Your task to perform on an android device: Open internet settings Image 0: 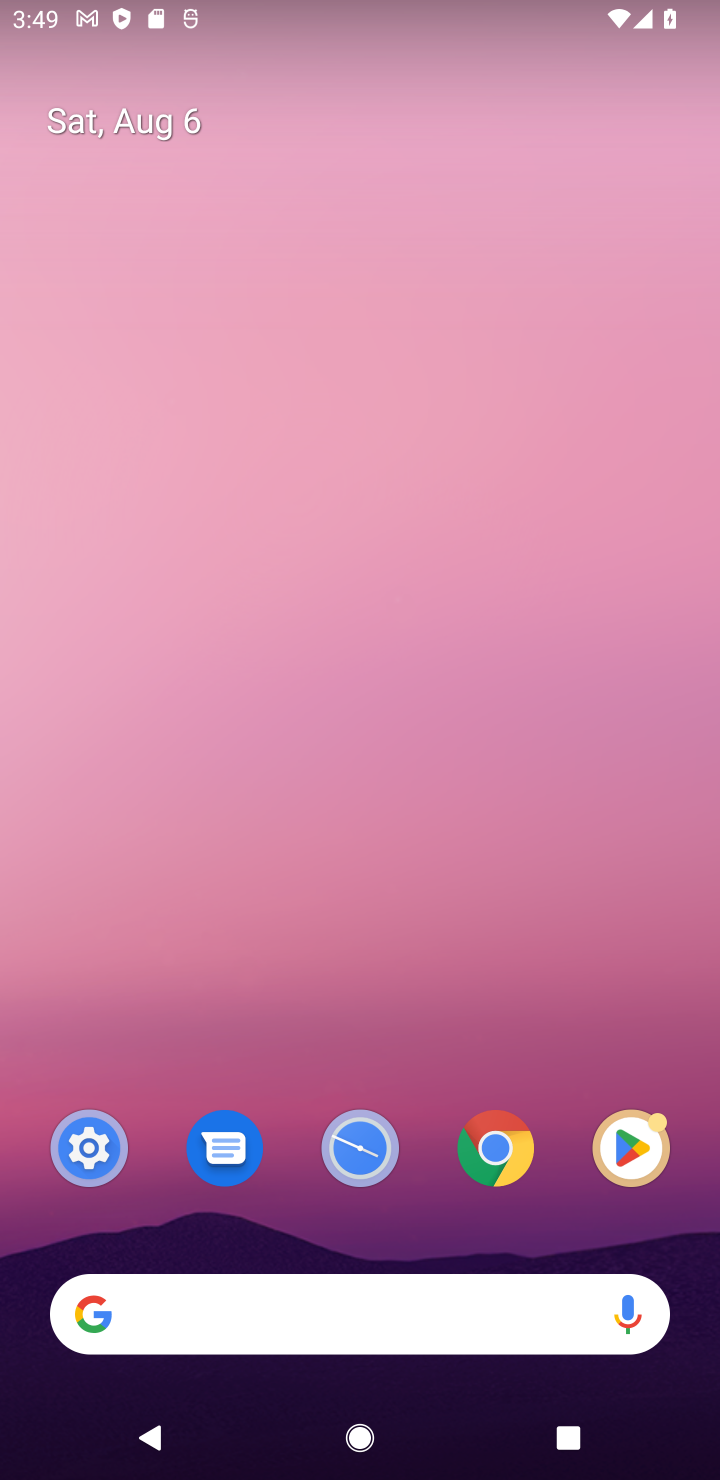
Step 0: drag from (291, 1187) to (291, 345)
Your task to perform on an android device: Open internet settings Image 1: 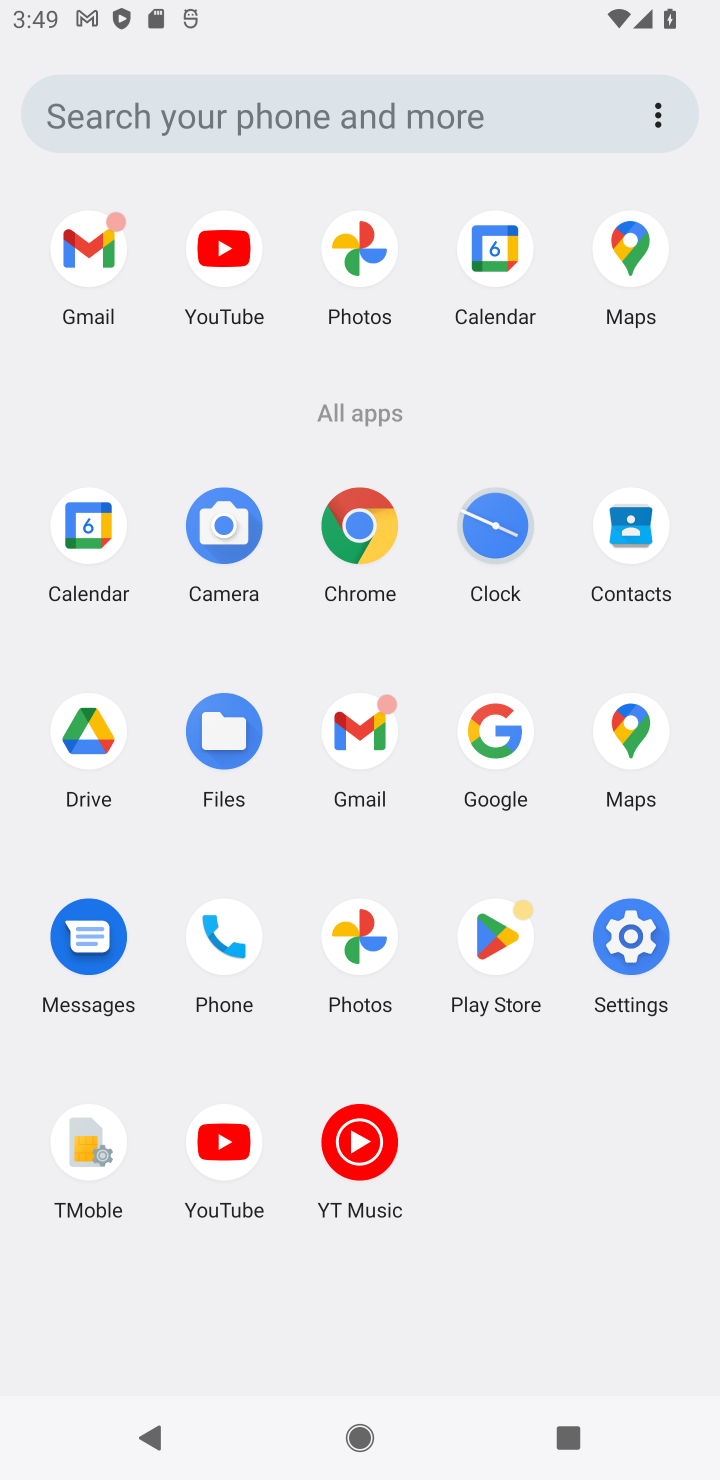
Step 1: click (615, 930)
Your task to perform on an android device: Open internet settings Image 2: 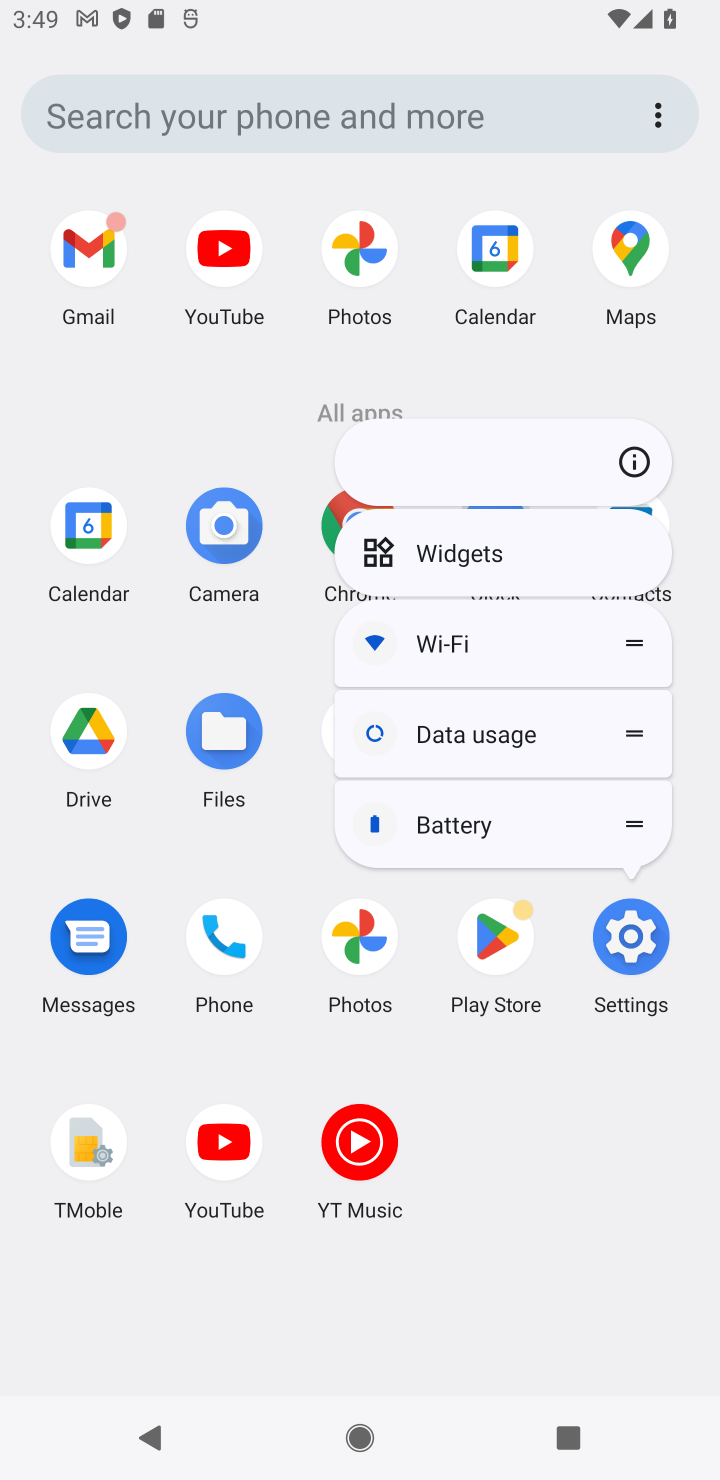
Step 2: click (630, 460)
Your task to perform on an android device: Open internet settings Image 3: 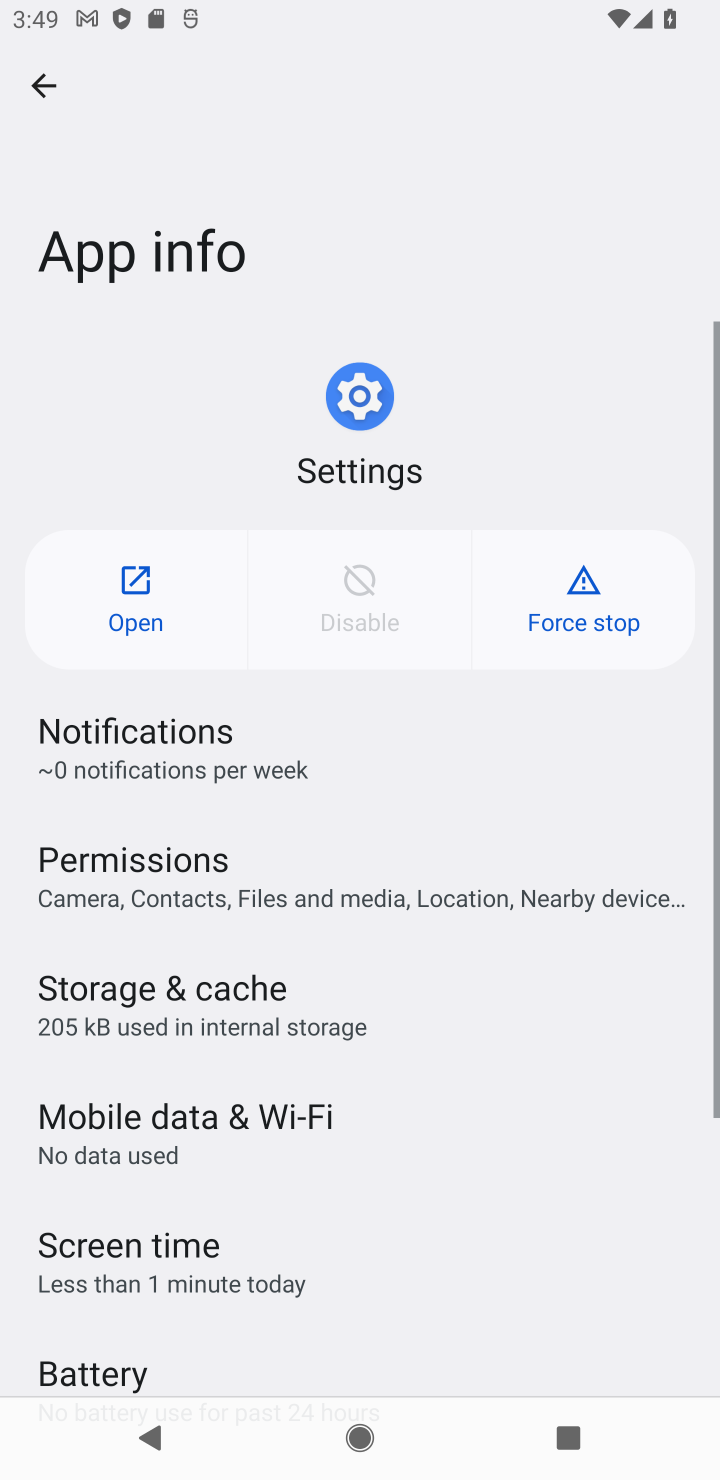
Step 3: click (145, 599)
Your task to perform on an android device: Open internet settings Image 4: 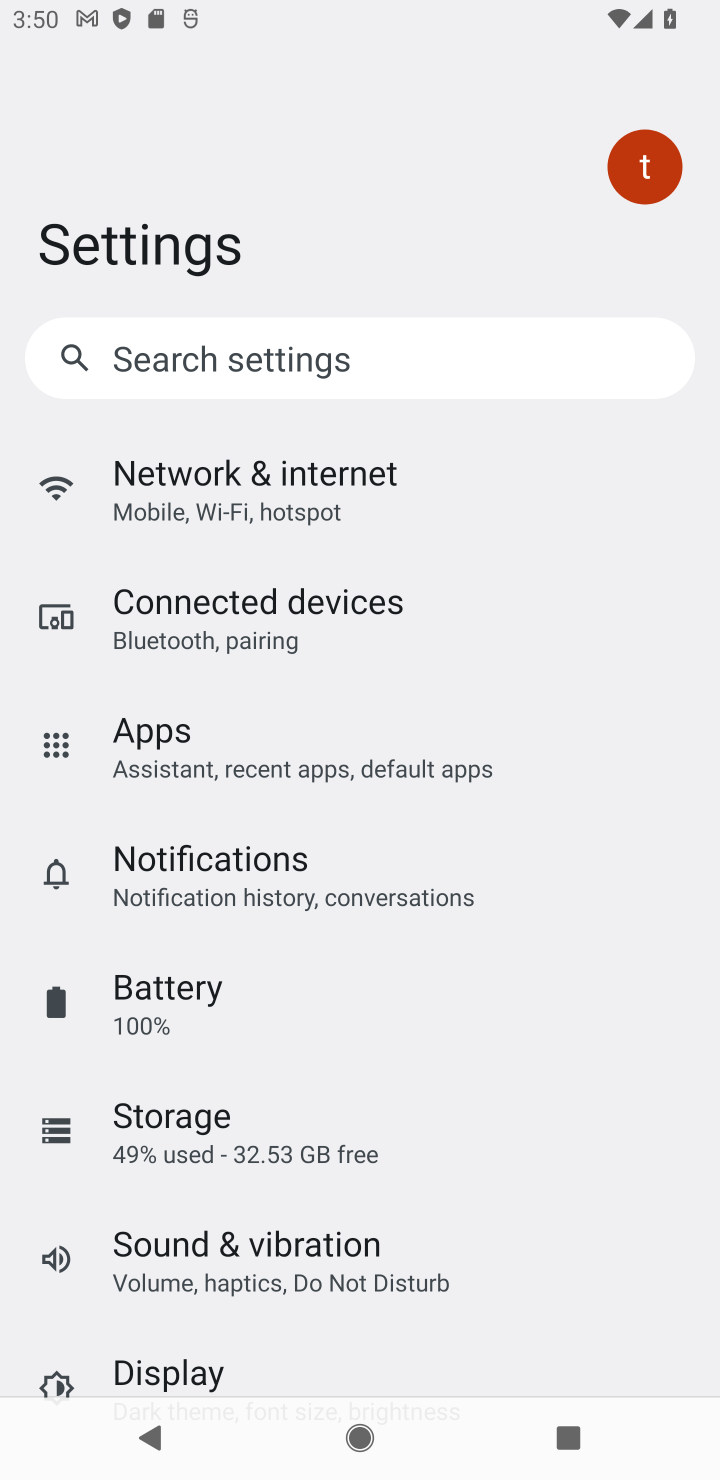
Step 4: click (273, 508)
Your task to perform on an android device: Open internet settings Image 5: 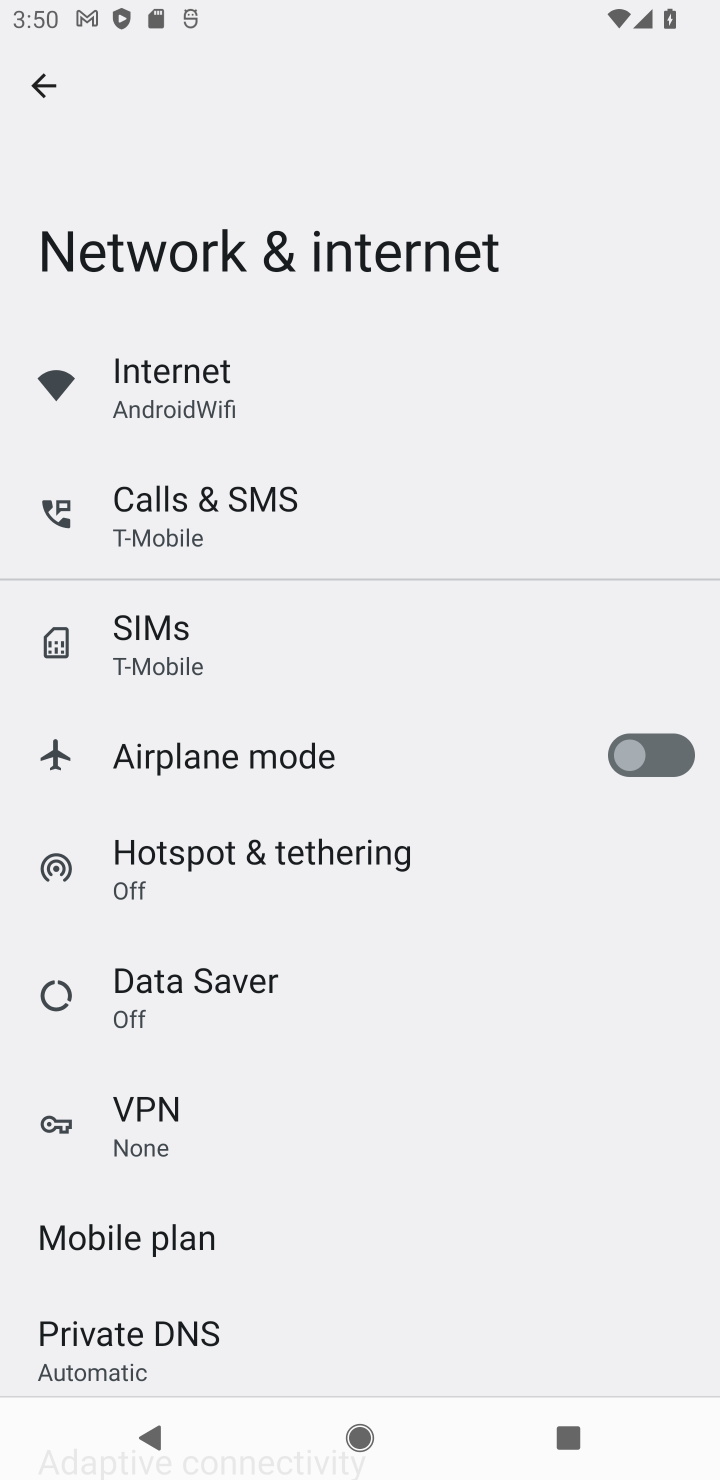
Step 5: click (301, 370)
Your task to perform on an android device: Open internet settings Image 6: 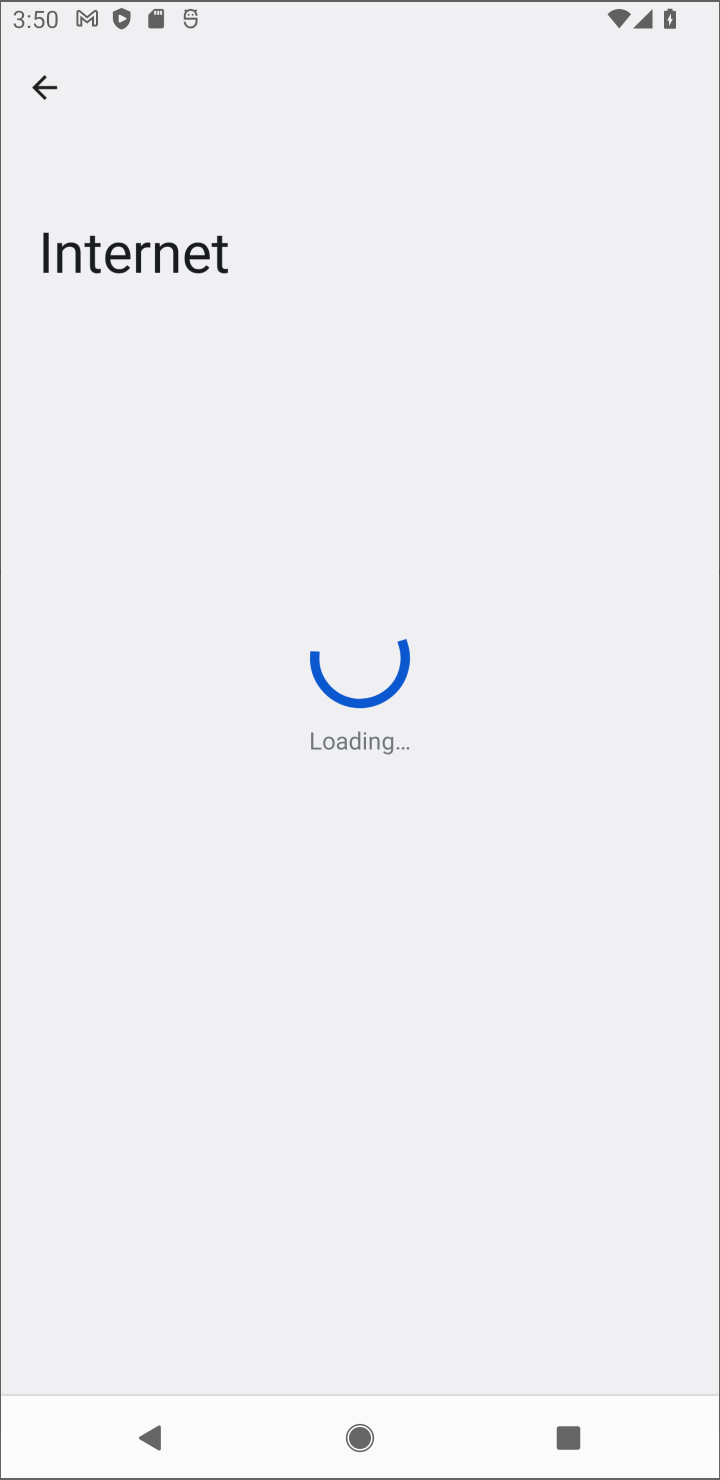
Step 6: drag from (400, 1148) to (475, 447)
Your task to perform on an android device: Open internet settings Image 7: 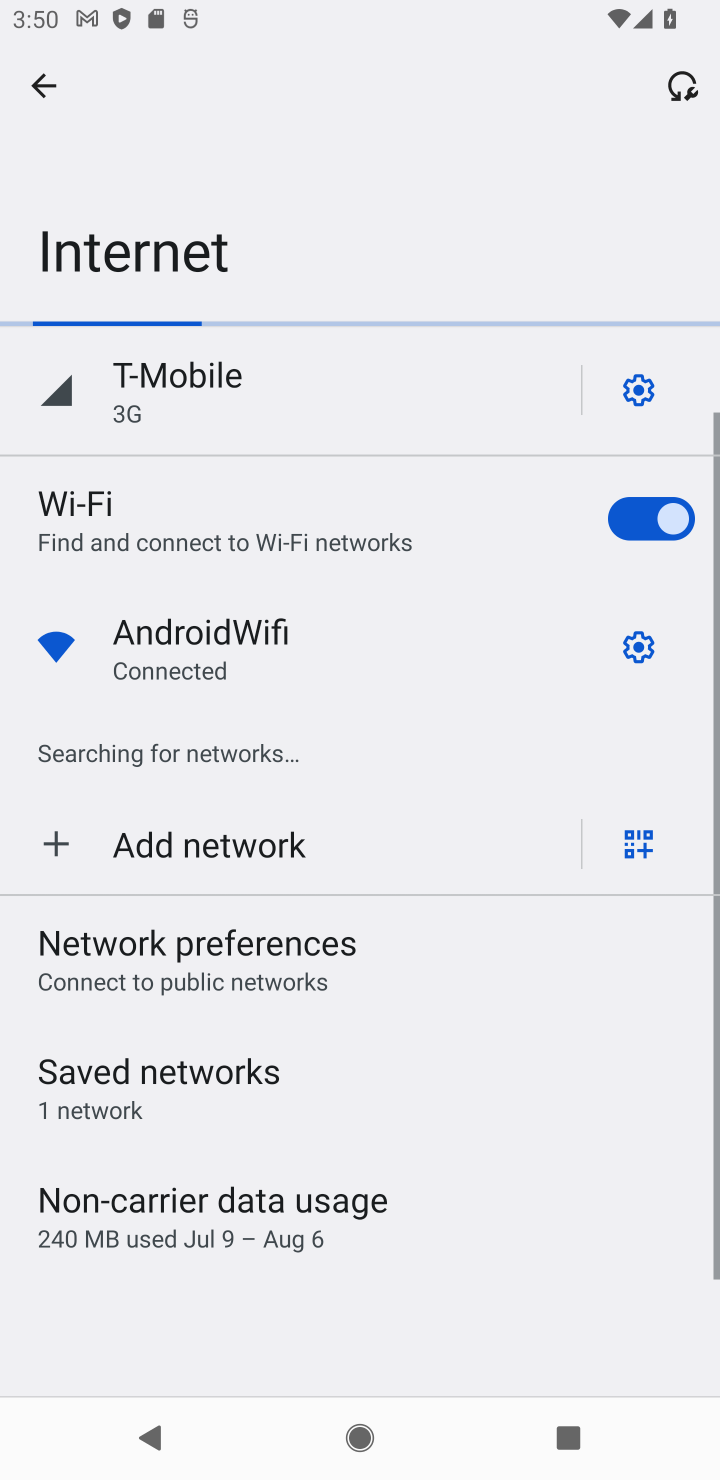
Step 7: click (626, 397)
Your task to perform on an android device: Open internet settings Image 8: 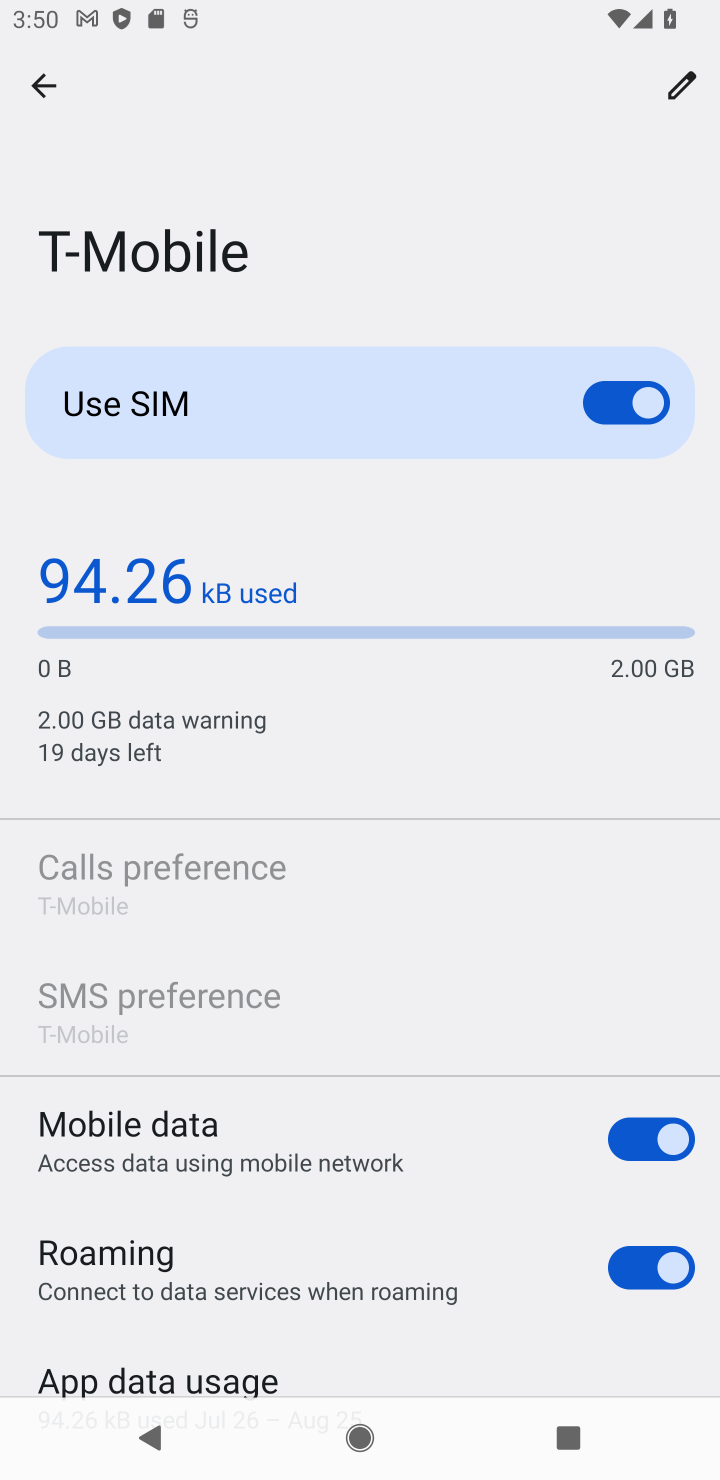
Step 8: task complete